Your task to perform on an android device: turn notification dots on Image 0: 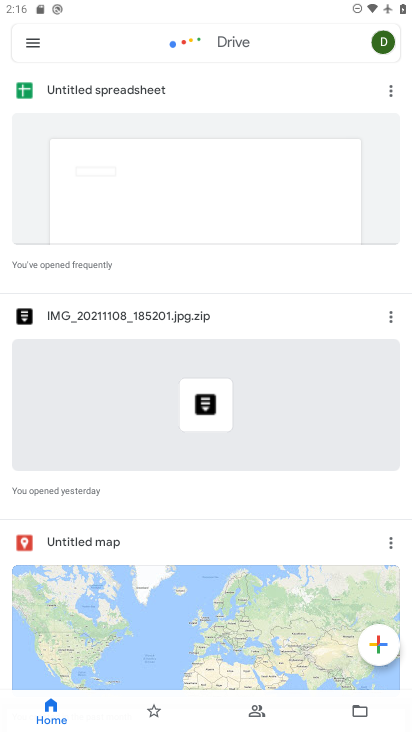
Step 0: press home button
Your task to perform on an android device: turn notification dots on Image 1: 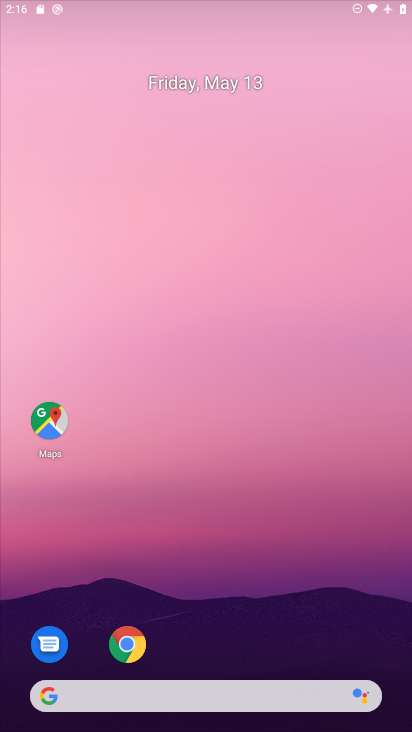
Step 1: drag from (349, 627) to (260, 17)
Your task to perform on an android device: turn notification dots on Image 2: 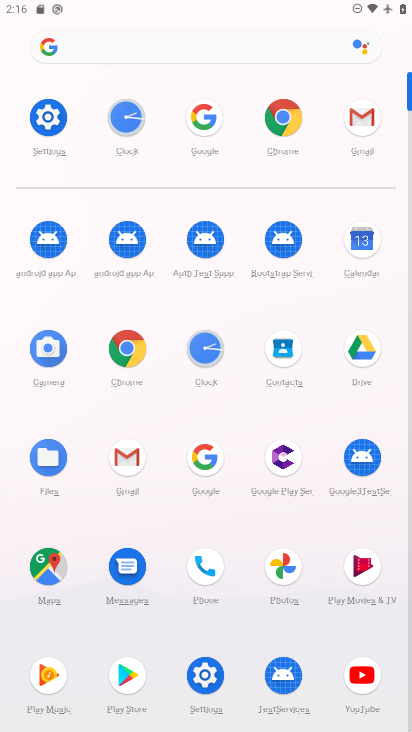
Step 2: click (207, 671)
Your task to perform on an android device: turn notification dots on Image 3: 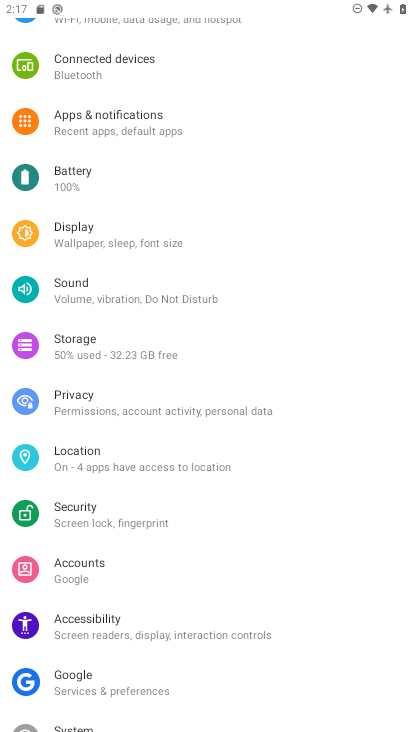
Step 3: click (156, 122)
Your task to perform on an android device: turn notification dots on Image 4: 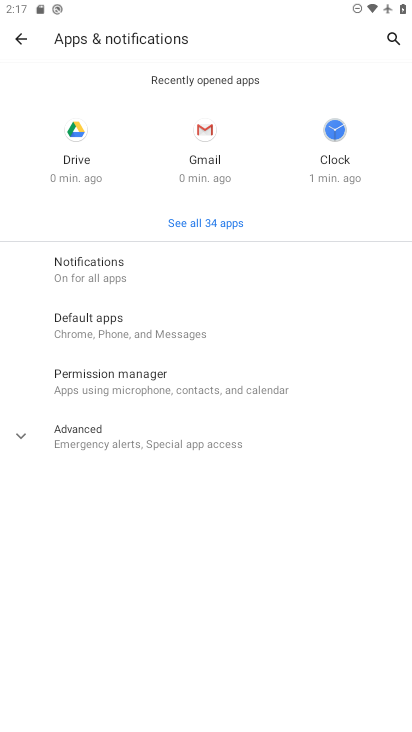
Step 4: click (146, 281)
Your task to perform on an android device: turn notification dots on Image 5: 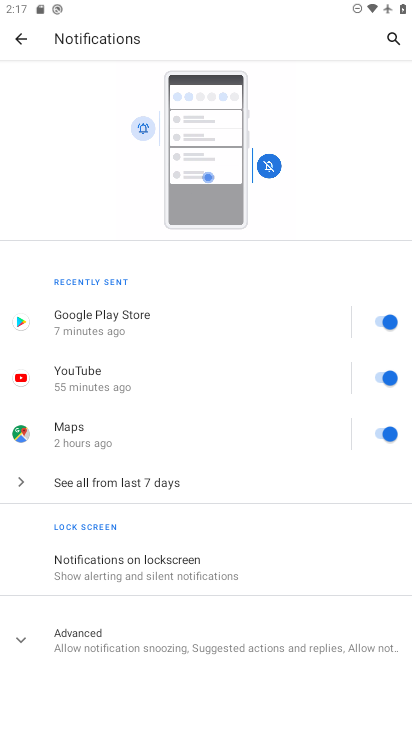
Step 5: drag from (206, 503) to (185, 230)
Your task to perform on an android device: turn notification dots on Image 6: 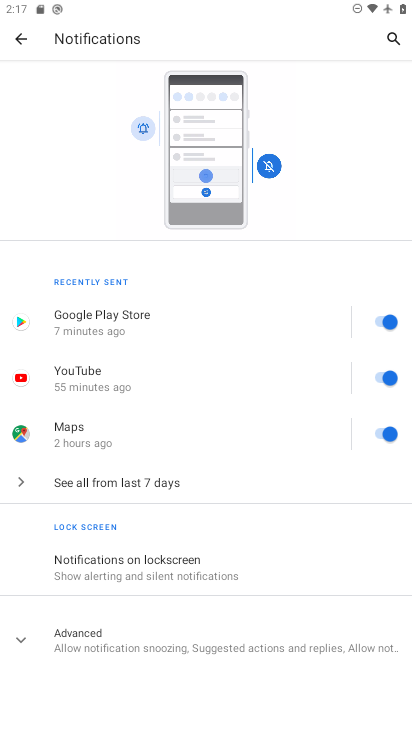
Step 6: click (37, 639)
Your task to perform on an android device: turn notification dots on Image 7: 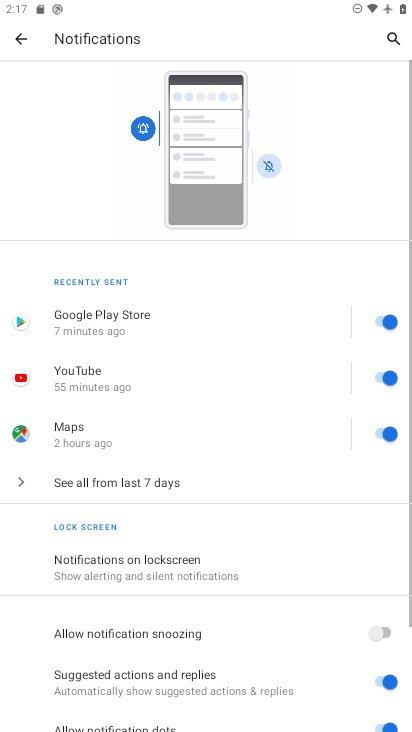
Step 7: task complete